Your task to perform on an android device: Check the news Image 0: 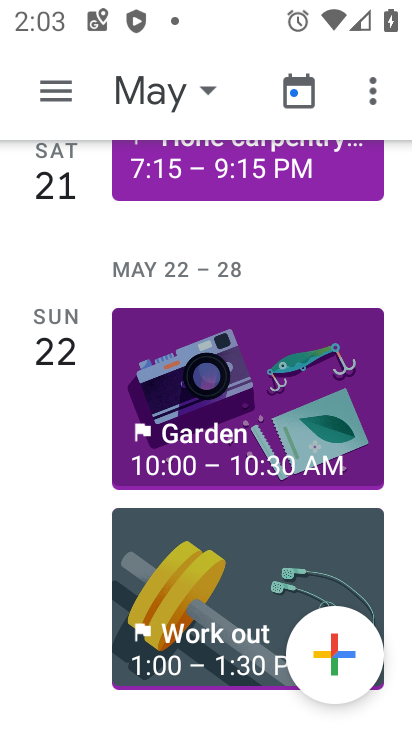
Step 0: press home button
Your task to perform on an android device: Check the news Image 1: 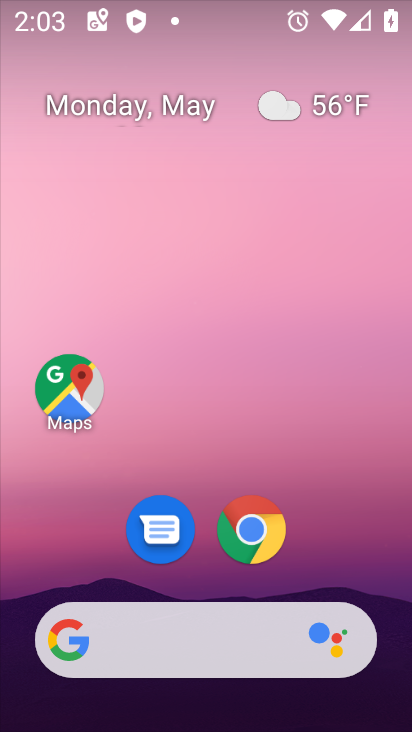
Step 1: click (187, 640)
Your task to perform on an android device: Check the news Image 2: 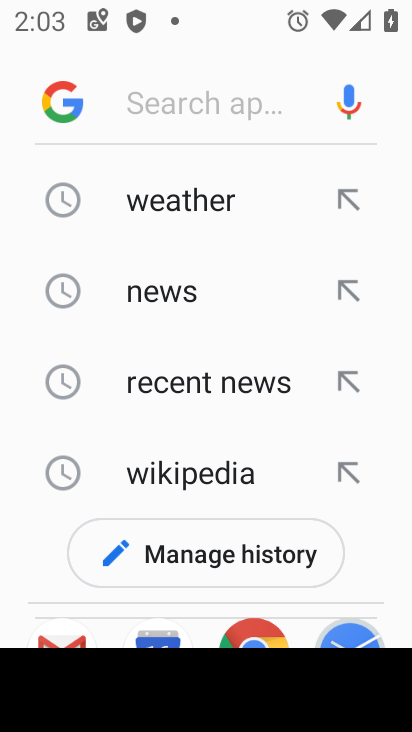
Step 2: type "news"
Your task to perform on an android device: Check the news Image 3: 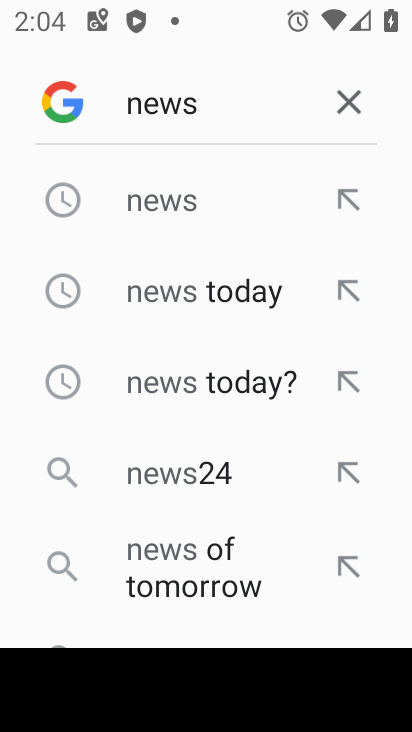
Step 3: click (164, 199)
Your task to perform on an android device: Check the news Image 4: 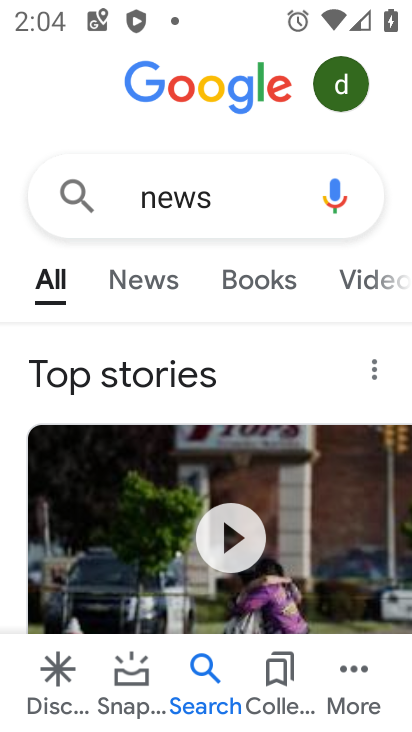
Step 4: click (122, 284)
Your task to perform on an android device: Check the news Image 5: 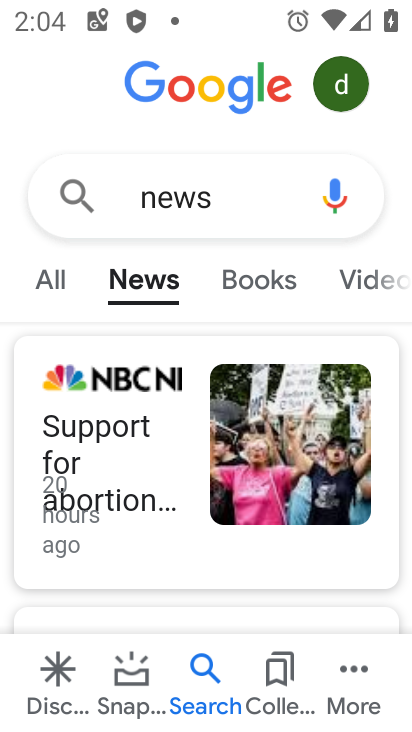
Step 5: task complete